Your task to perform on an android device: Open Wikipedia Image 0: 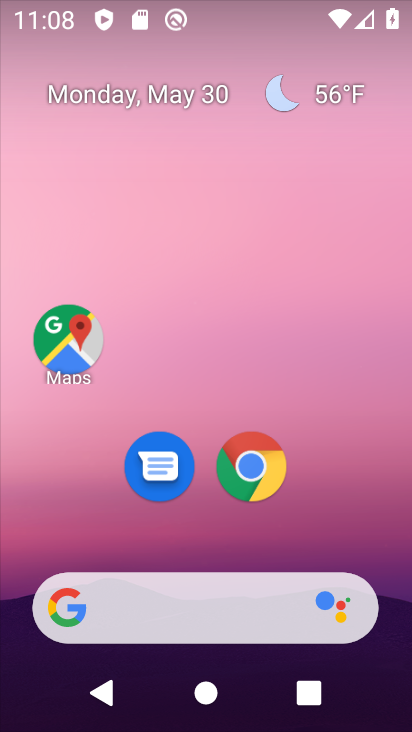
Step 0: click (252, 466)
Your task to perform on an android device: Open Wikipedia Image 1: 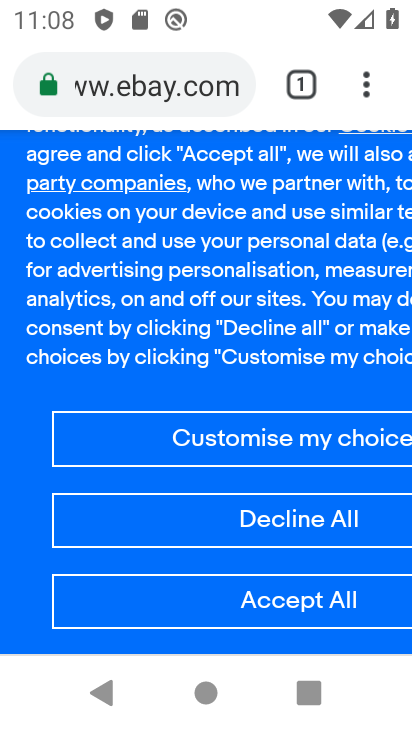
Step 1: click (307, 88)
Your task to perform on an android device: Open Wikipedia Image 2: 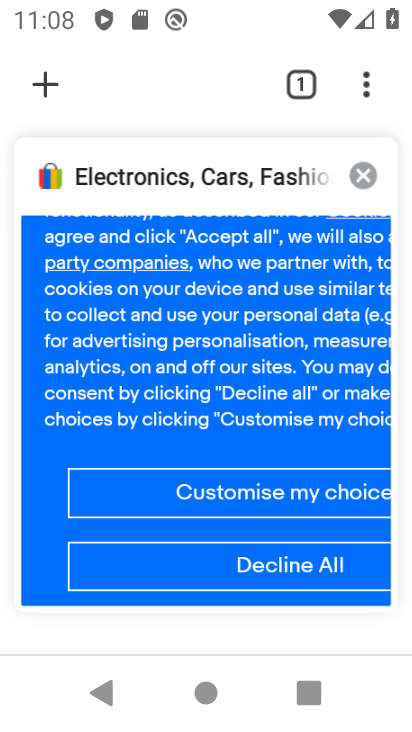
Step 2: click (362, 179)
Your task to perform on an android device: Open Wikipedia Image 3: 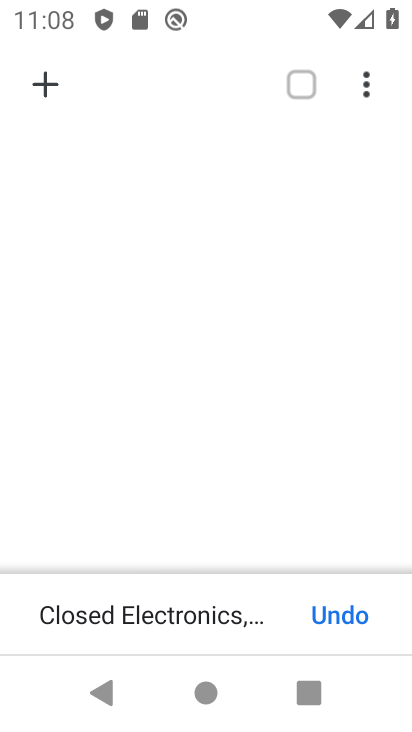
Step 3: click (38, 72)
Your task to perform on an android device: Open Wikipedia Image 4: 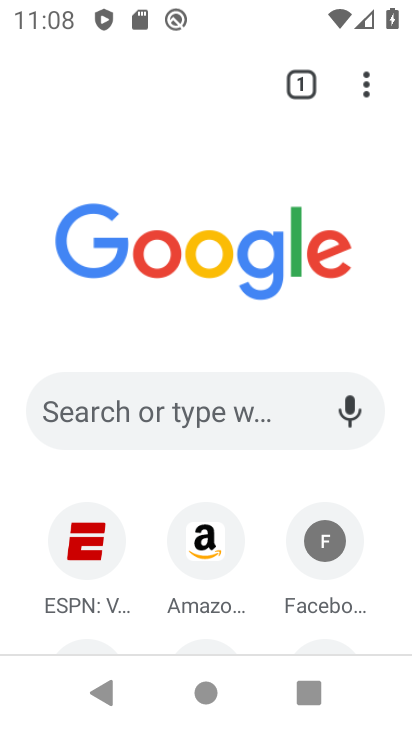
Step 4: drag from (276, 516) to (258, 260)
Your task to perform on an android device: Open Wikipedia Image 5: 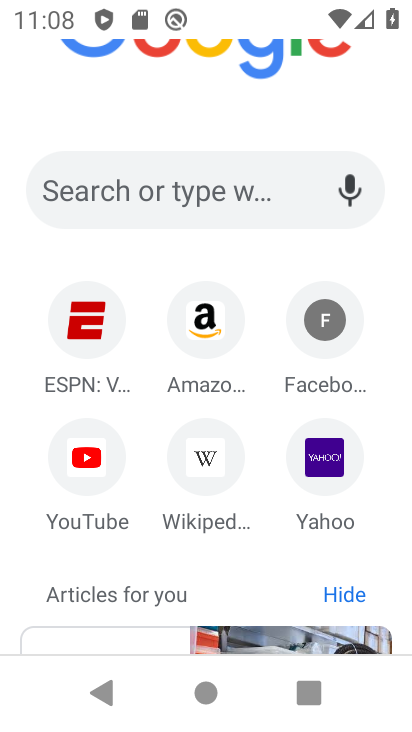
Step 5: click (207, 469)
Your task to perform on an android device: Open Wikipedia Image 6: 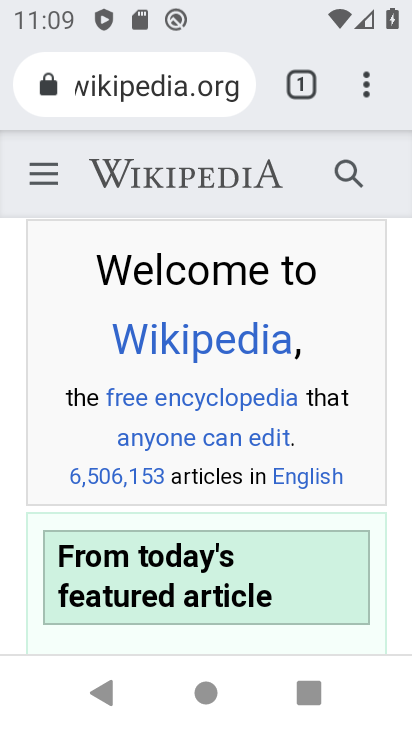
Step 6: task complete